Your task to perform on an android device: Open Google Chrome and click the shortcut for Amazon.com Image 0: 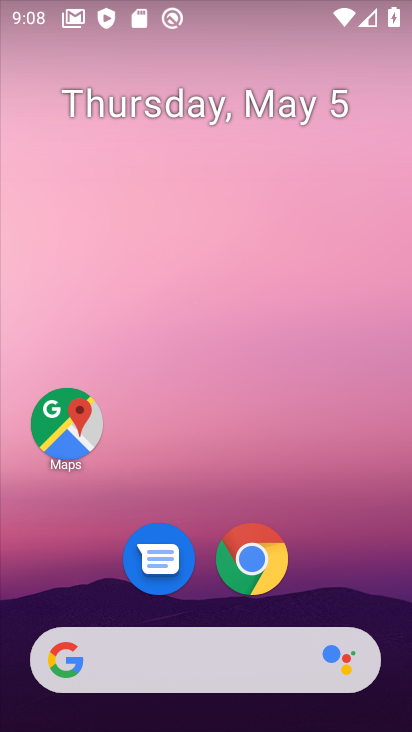
Step 0: click (240, 568)
Your task to perform on an android device: Open Google Chrome and click the shortcut for Amazon.com Image 1: 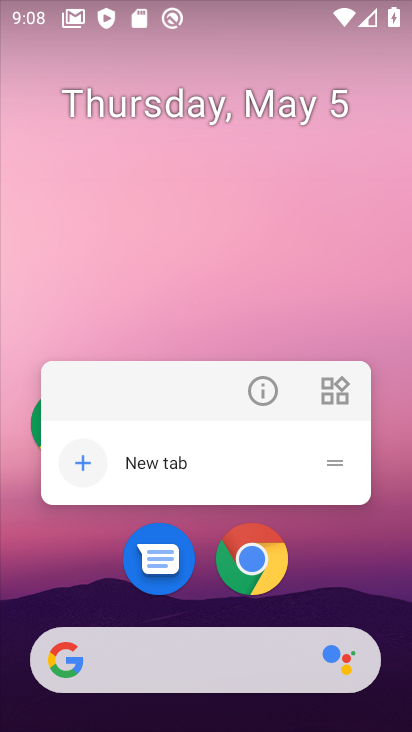
Step 1: click (267, 398)
Your task to perform on an android device: Open Google Chrome and click the shortcut for Amazon.com Image 2: 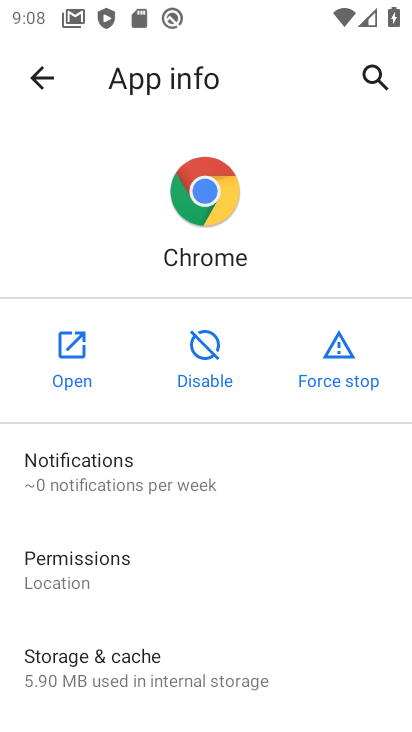
Step 2: click (77, 339)
Your task to perform on an android device: Open Google Chrome and click the shortcut for Amazon.com Image 3: 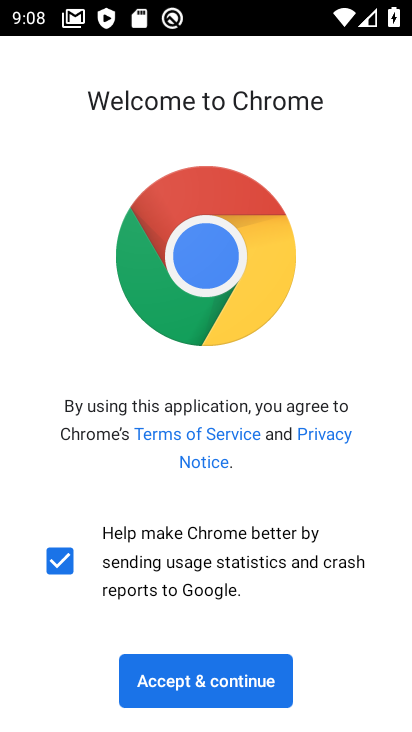
Step 3: click (163, 684)
Your task to perform on an android device: Open Google Chrome and click the shortcut for Amazon.com Image 4: 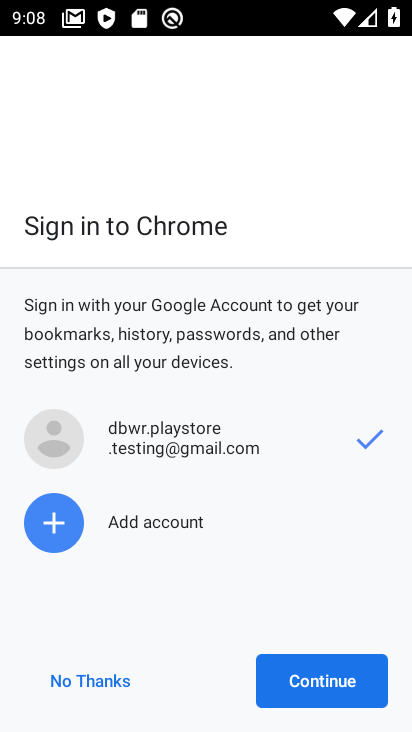
Step 4: click (131, 680)
Your task to perform on an android device: Open Google Chrome and click the shortcut for Amazon.com Image 5: 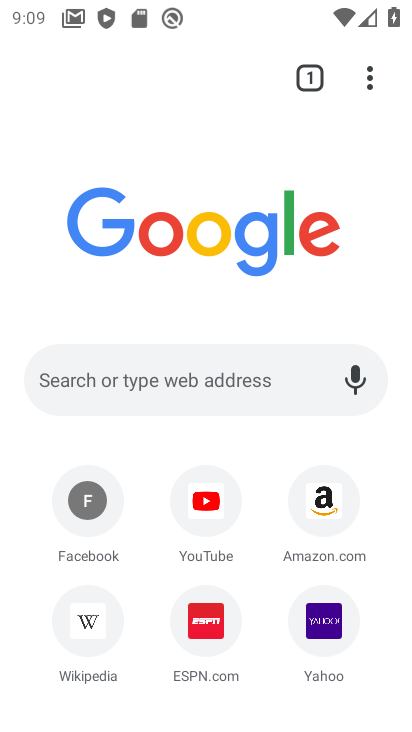
Step 5: click (319, 499)
Your task to perform on an android device: Open Google Chrome and click the shortcut for Amazon.com Image 6: 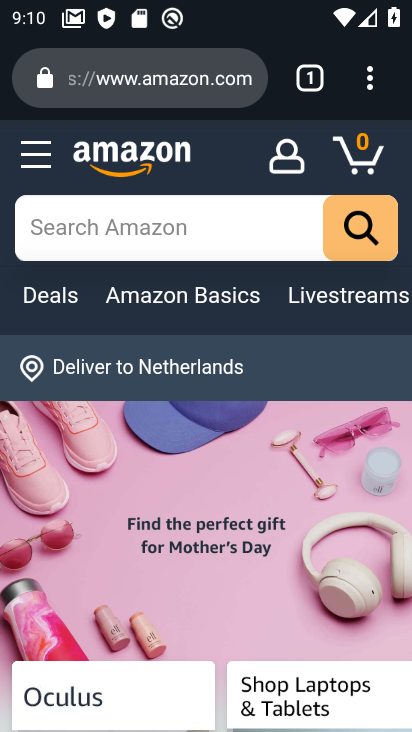
Step 6: task complete